Your task to perform on an android device: install app "VLC for Android" Image 0: 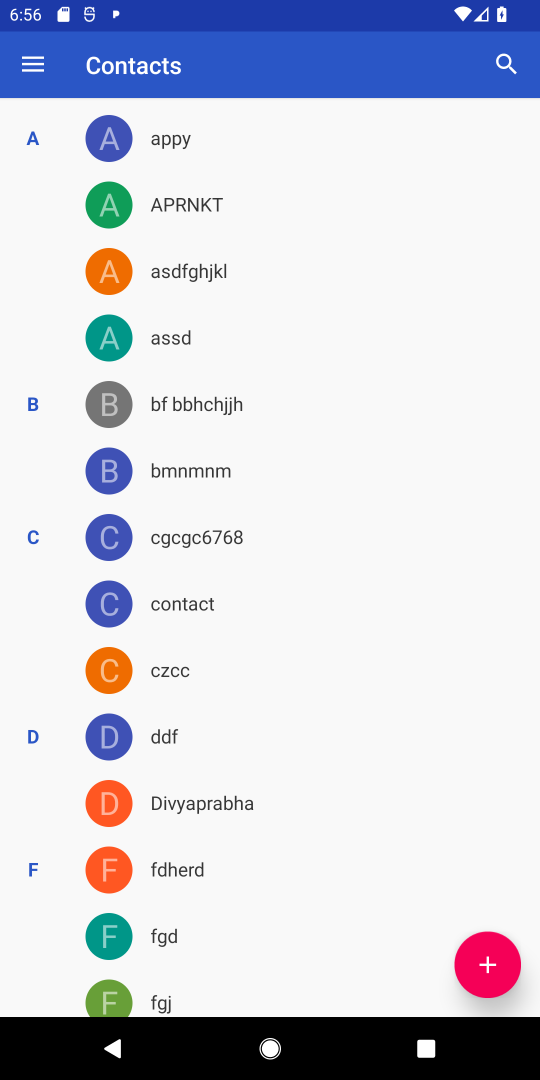
Step 0: press home button
Your task to perform on an android device: install app "VLC for Android" Image 1: 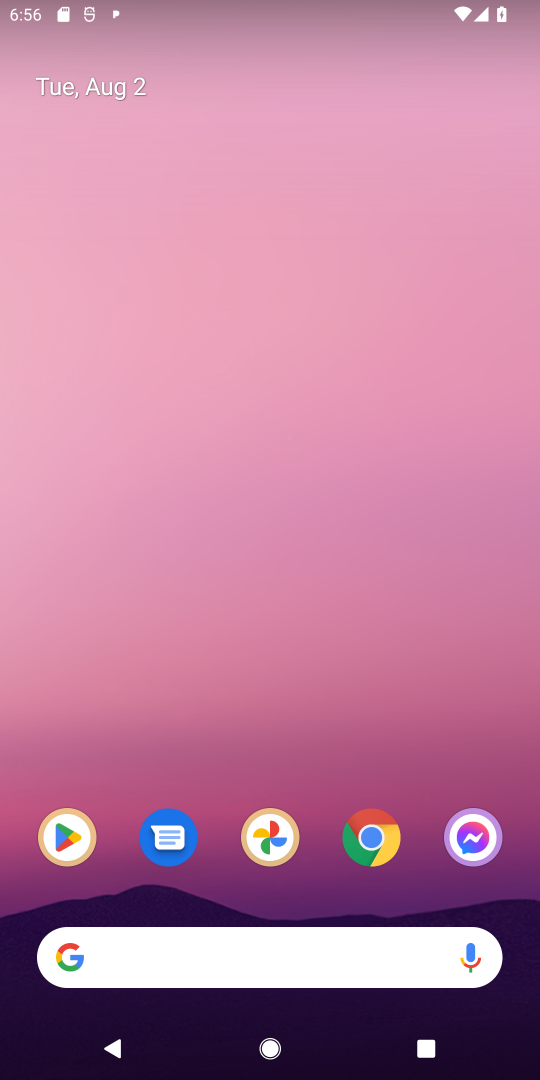
Step 1: click (66, 834)
Your task to perform on an android device: install app "VLC for Android" Image 2: 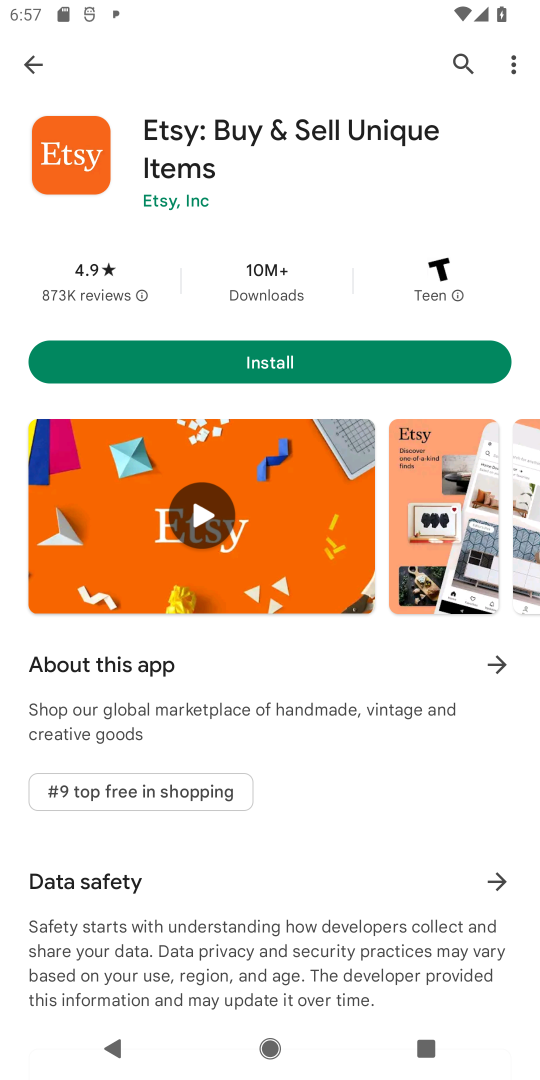
Step 2: click (459, 51)
Your task to perform on an android device: install app "VLC for Android" Image 3: 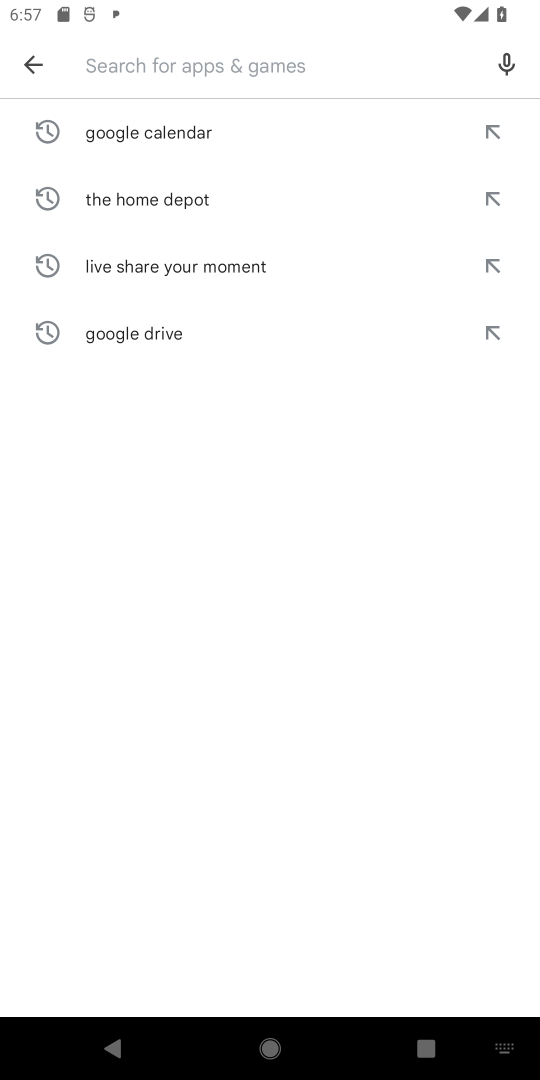
Step 3: type "VLC for Android"
Your task to perform on an android device: install app "VLC for Android" Image 4: 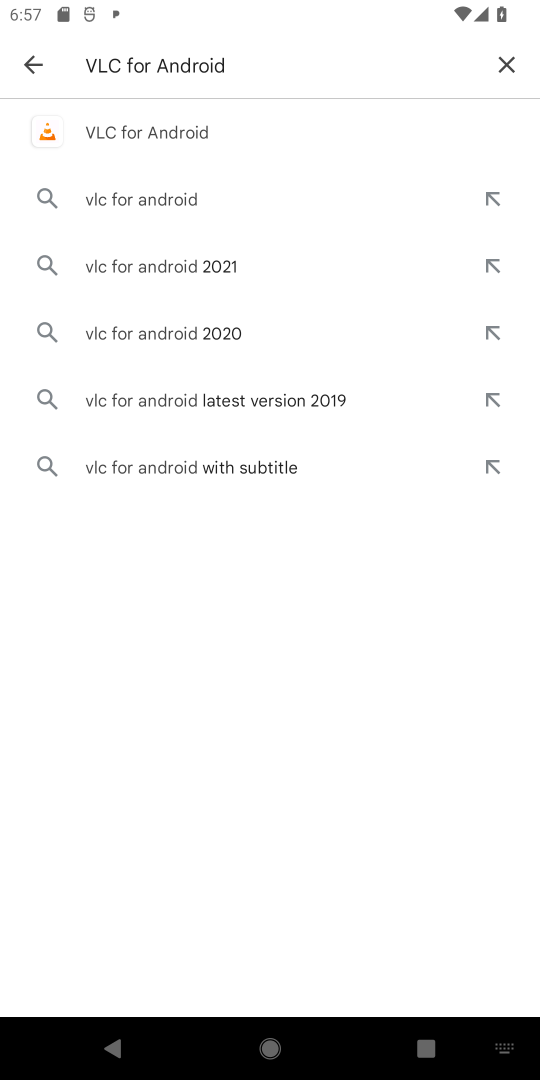
Step 4: click (141, 138)
Your task to perform on an android device: install app "VLC for Android" Image 5: 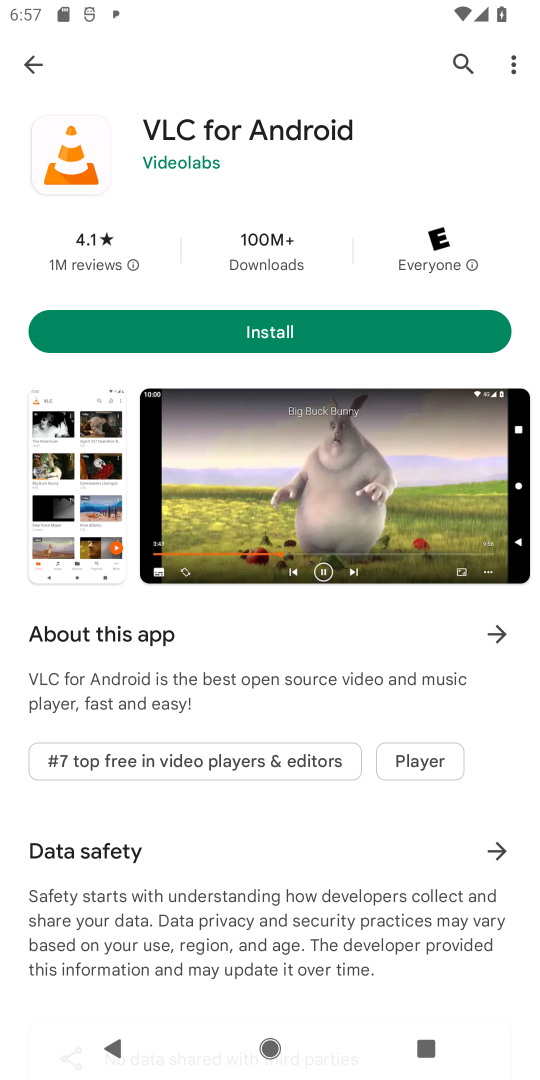
Step 5: click (275, 335)
Your task to perform on an android device: install app "VLC for Android" Image 6: 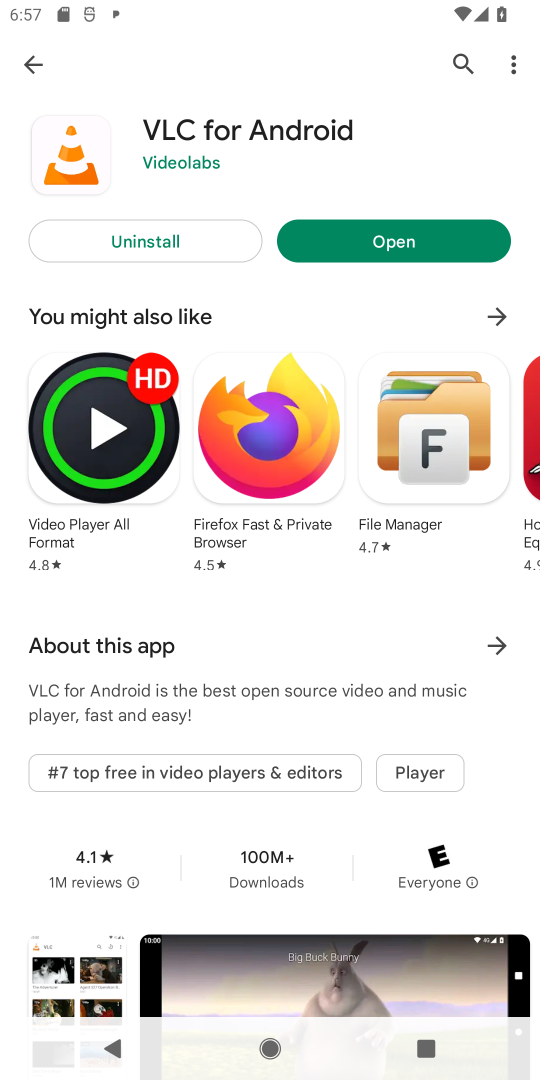
Step 6: task complete